Your task to perform on an android device: turn off airplane mode Image 0: 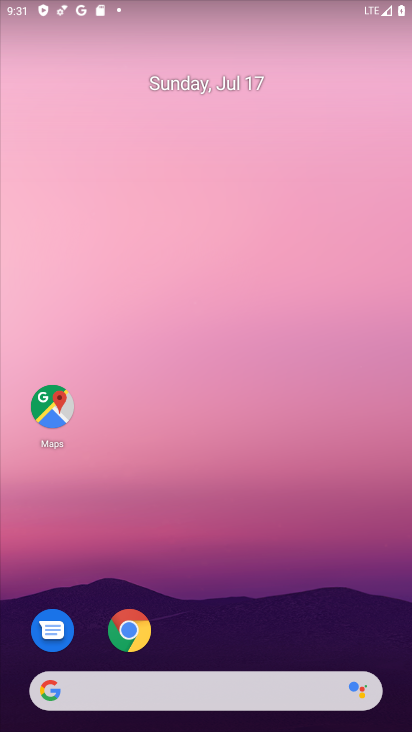
Step 0: press home button
Your task to perform on an android device: turn off airplane mode Image 1: 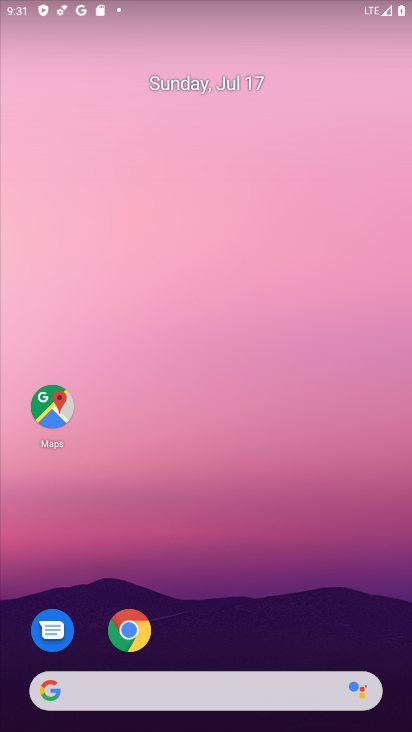
Step 1: task complete